Your task to perform on an android device: toggle notification dots Image 0: 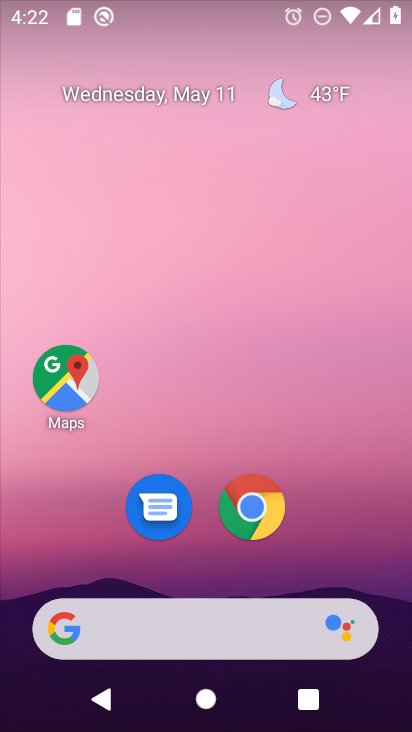
Step 0: drag from (400, 623) to (309, 91)
Your task to perform on an android device: toggle notification dots Image 1: 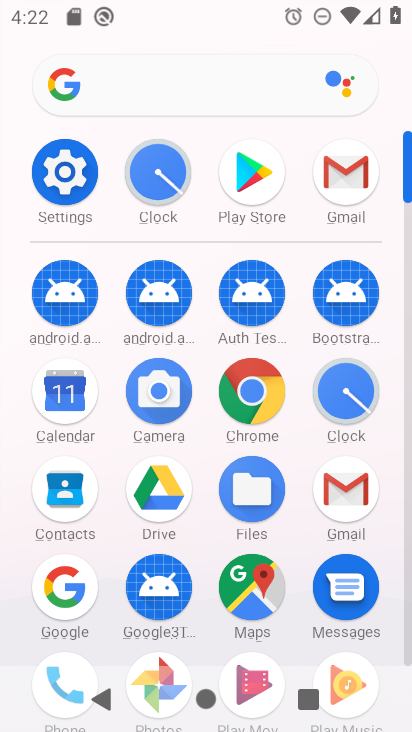
Step 1: click (408, 653)
Your task to perform on an android device: toggle notification dots Image 2: 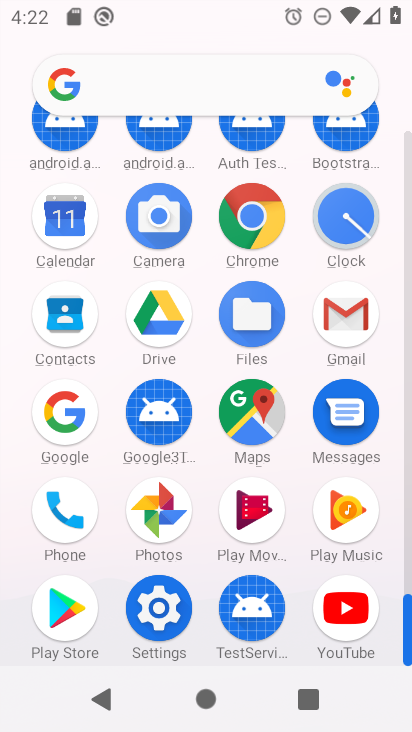
Step 2: click (157, 606)
Your task to perform on an android device: toggle notification dots Image 3: 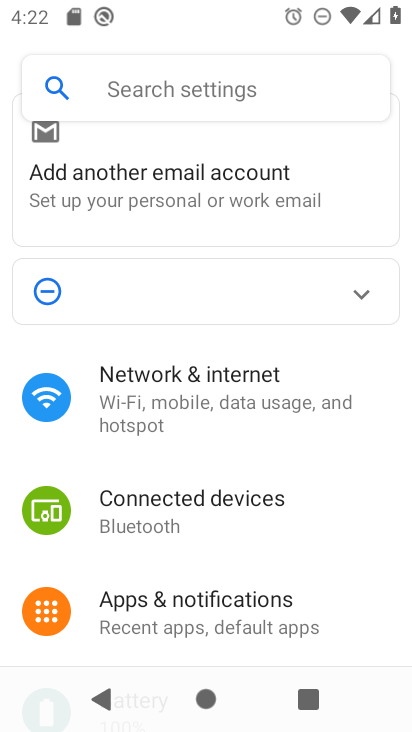
Step 3: click (169, 599)
Your task to perform on an android device: toggle notification dots Image 4: 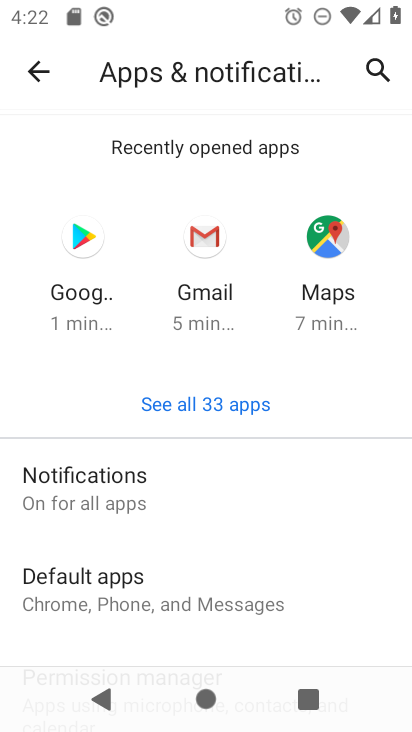
Step 4: click (56, 468)
Your task to perform on an android device: toggle notification dots Image 5: 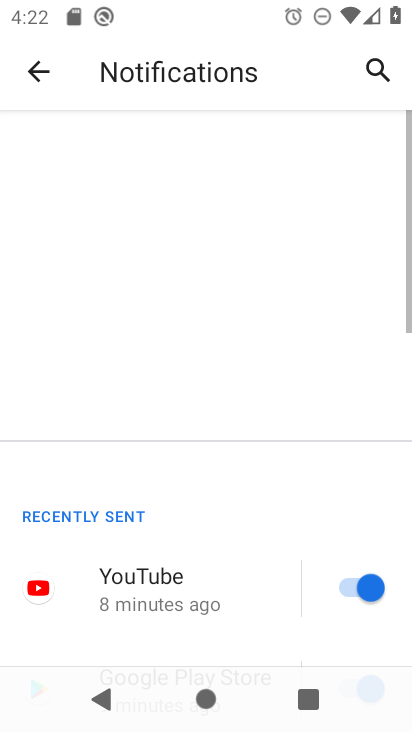
Step 5: drag from (302, 561) to (244, 77)
Your task to perform on an android device: toggle notification dots Image 6: 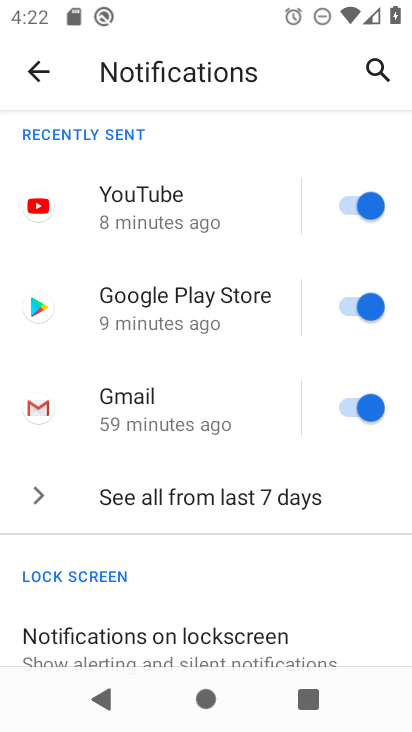
Step 6: drag from (252, 537) to (273, 69)
Your task to perform on an android device: toggle notification dots Image 7: 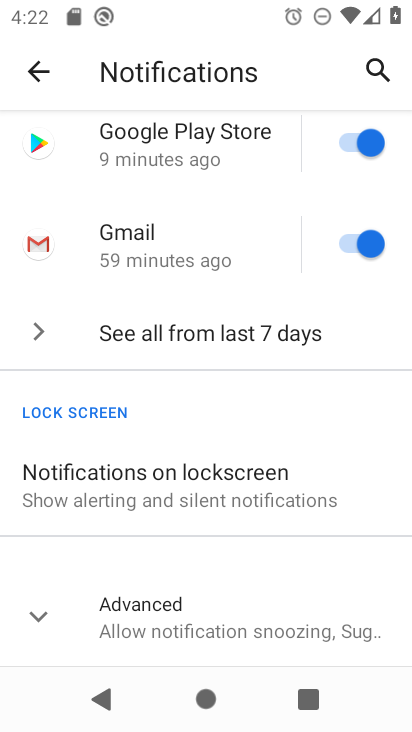
Step 7: click (34, 616)
Your task to perform on an android device: toggle notification dots Image 8: 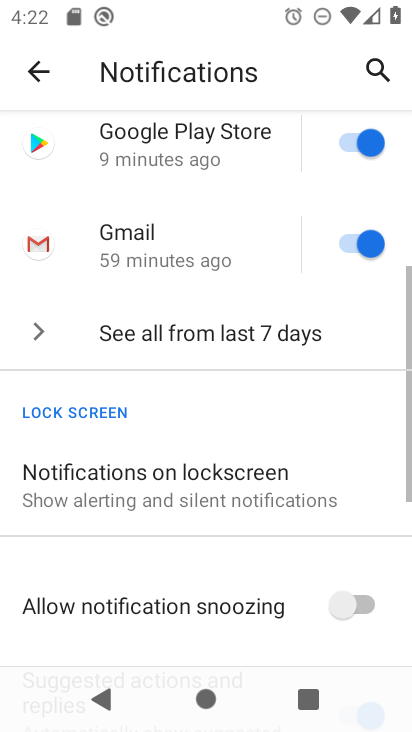
Step 8: drag from (303, 593) to (270, 27)
Your task to perform on an android device: toggle notification dots Image 9: 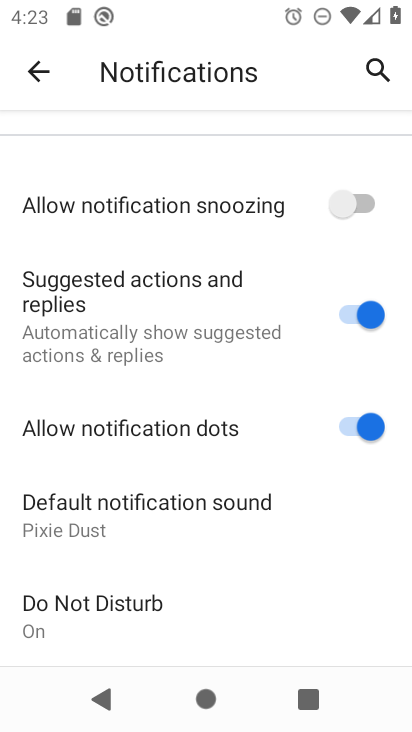
Step 9: click (341, 423)
Your task to perform on an android device: toggle notification dots Image 10: 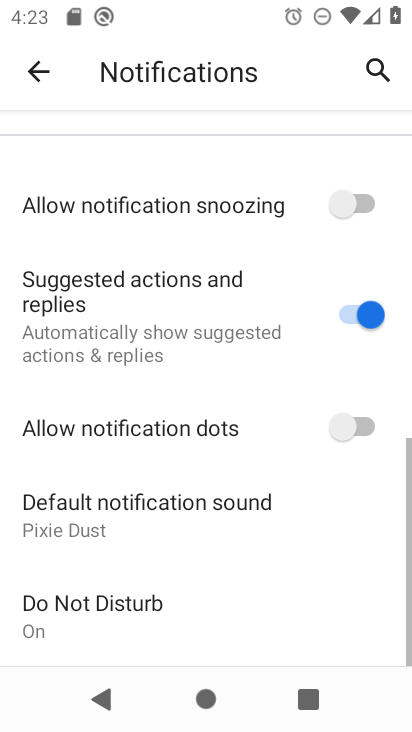
Step 10: task complete